Your task to perform on an android device: turn on bluetooth scan Image 0: 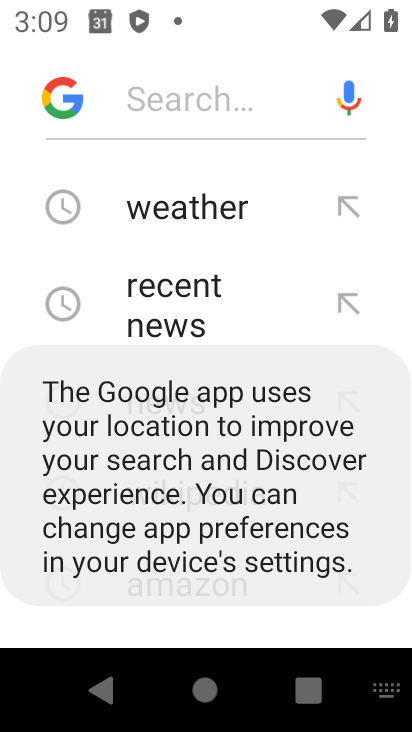
Step 0: press home button
Your task to perform on an android device: turn on bluetooth scan Image 1: 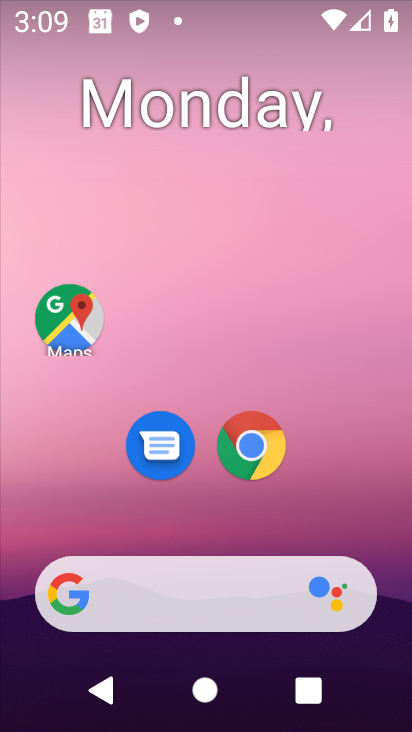
Step 1: drag from (212, 533) to (122, 106)
Your task to perform on an android device: turn on bluetooth scan Image 2: 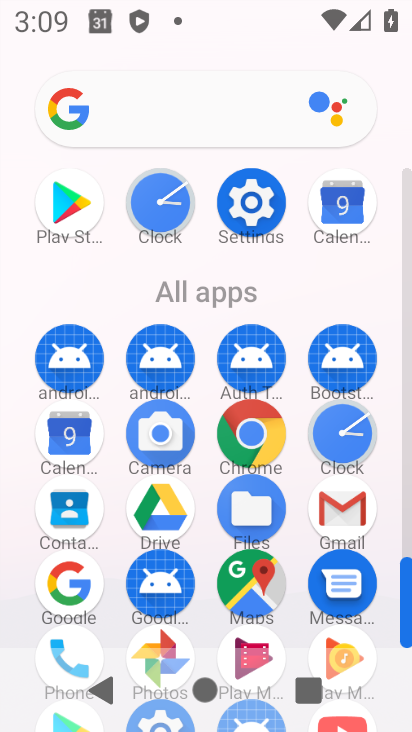
Step 2: click (247, 209)
Your task to perform on an android device: turn on bluetooth scan Image 3: 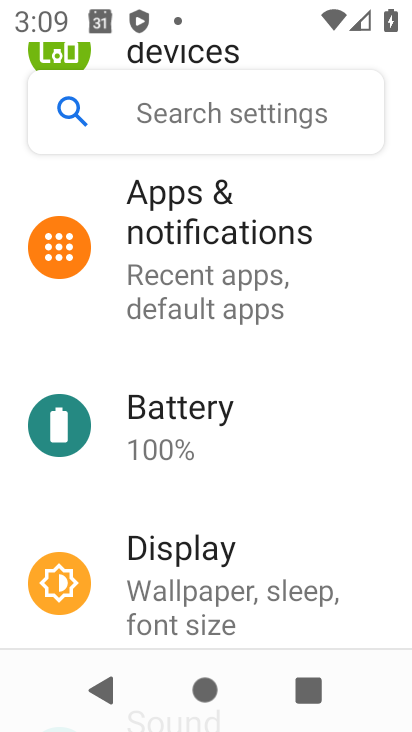
Step 3: drag from (246, 552) to (165, 381)
Your task to perform on an android device: turn on bluetooth scan Image 4: 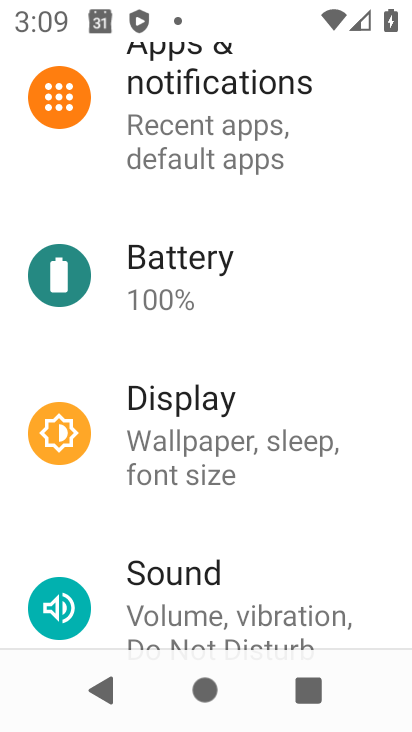
Step 4: drag from (155, 579) to (112, 451)
Your task to perform on an android device: turn on bluetooth scan Image 5: 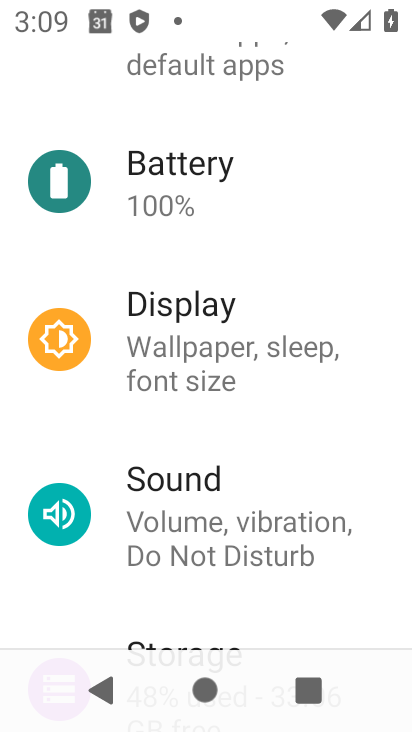
Step 5: drag from (143, 574) to (85, 386)
Your task to perform on an android device: turn on bluetooth scan Image 6: 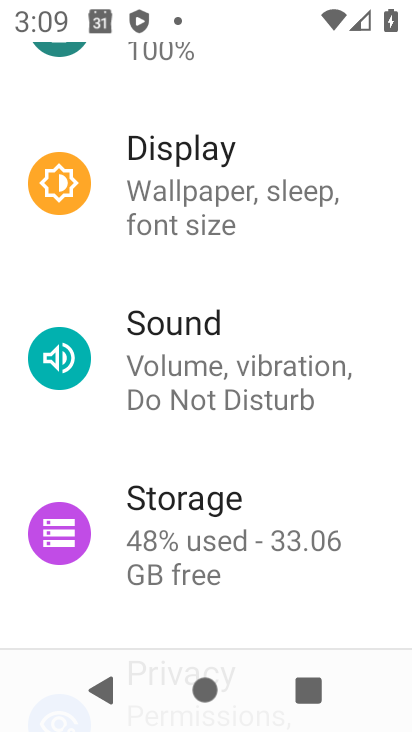
Step 6: drag from (170, 617) to (132, 405)
Your task to perform on an android device: turn on bluetooth scan Image 7: 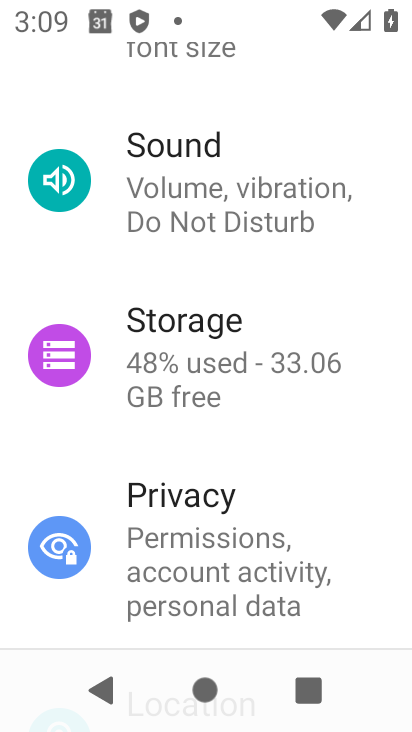
Step 7: drag from (167, 533) to (135, 392)
Your task to perform on an android device: turn on bluetooth scan Image 8: 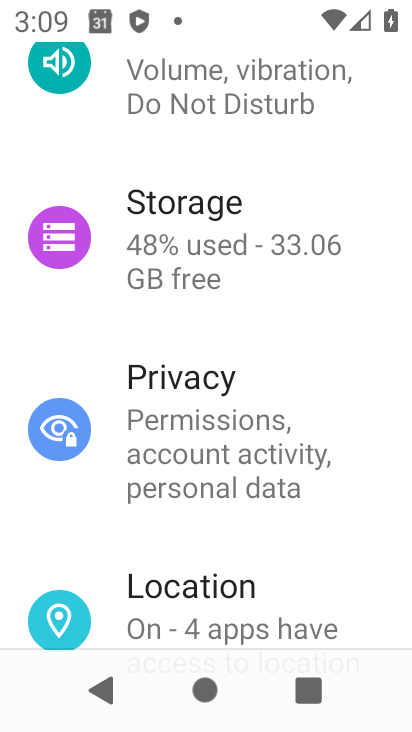
Step 8: click (180, 587)
Your task to perform on an android device: turn on bluetooth scan Image 9: 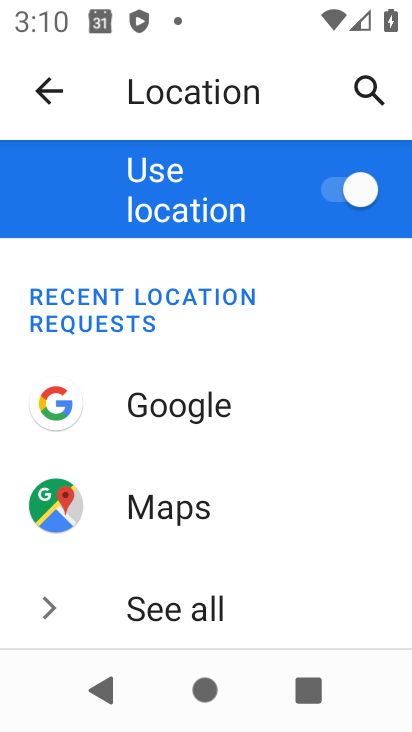
Step 9: drag from (178, 592) to (133, 360)
Your task to perform on an android device: turn on bluetooth scan Image 10: 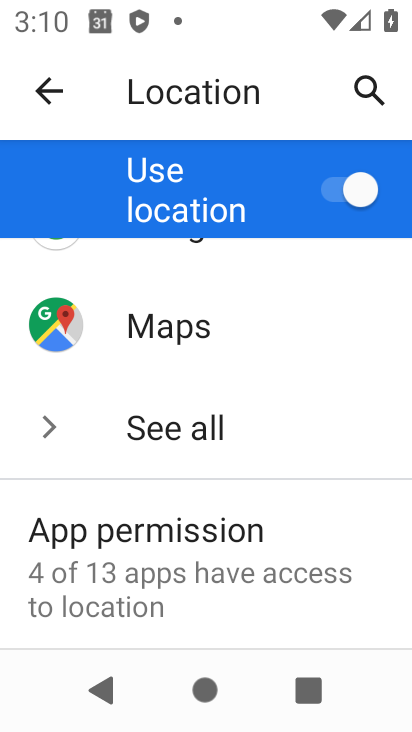
Step 10: drag from (194, 553) to (136, 379)
Your task to perform on an android device: turn on bluetooth scan Image 11: 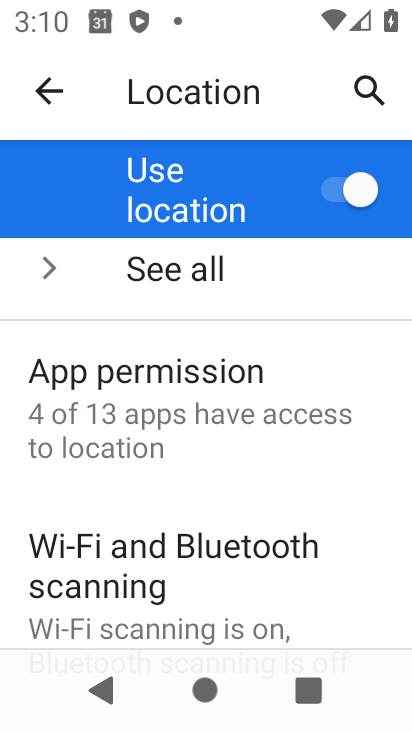
Step 11: drag from (172, 555) to (141, 358)
Your task to perform on an android device: turn on bluetooth scan Image 12: 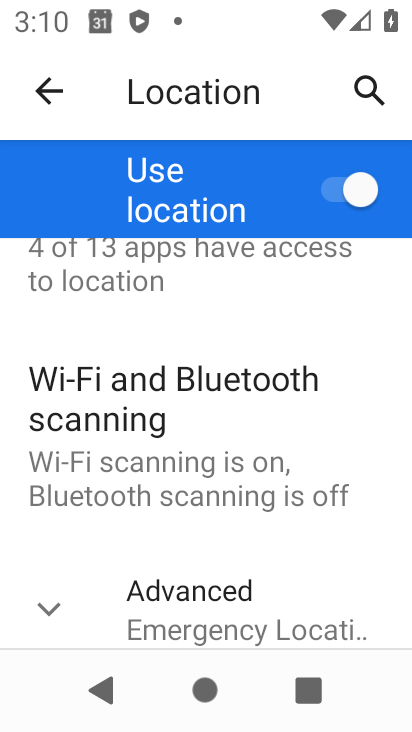
Step 12: click (179, 463)
Your task to perform on an android device: turn on bluetooth scan Image 13: 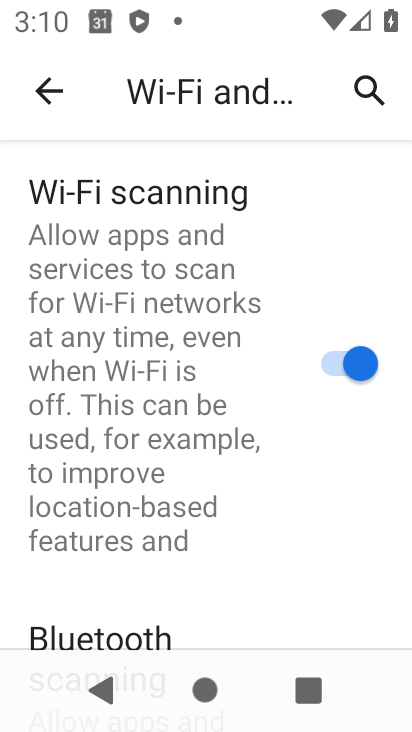
Step 13: drag from (180, 579) to (168, 287)
Your task to perform on an android device: turn on bluetooth scan Image 14: 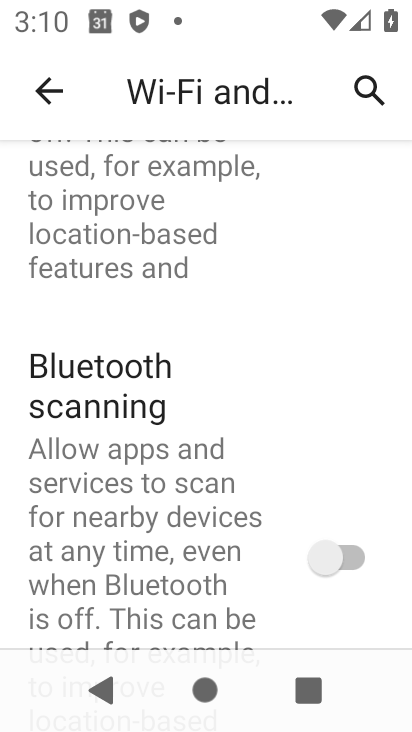
Step 14: click (327, 547)
Your task to perform on an android device: turn on bluetooth scan Image 15: 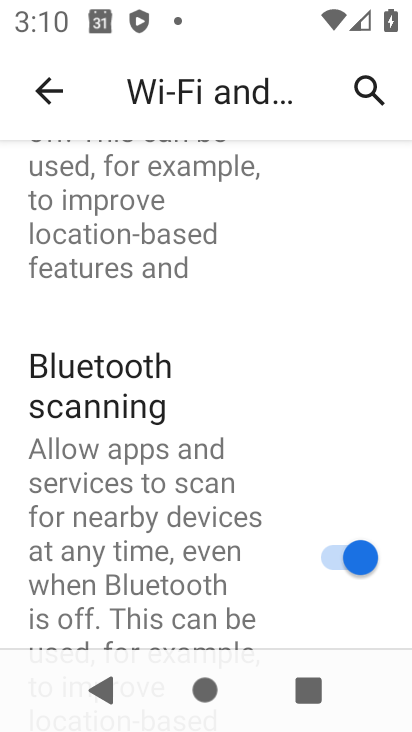
Step 15: task complete